Your task to perform on an android device: Go to settings Image 0: 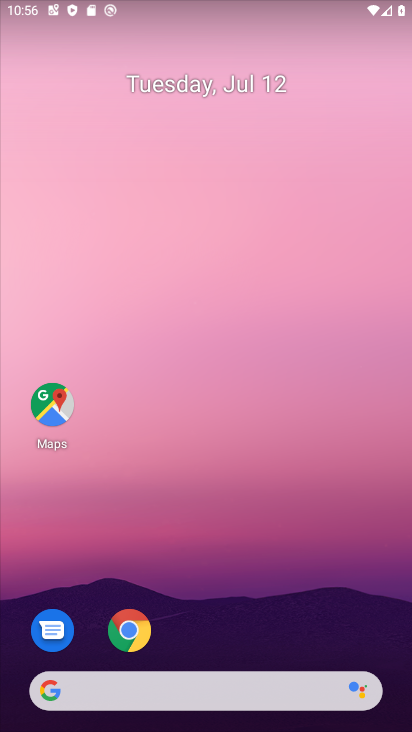
Step 0: drag from (312, 603) to (201, 30)
Your task to perform on an android device: Go to settings Image 1: 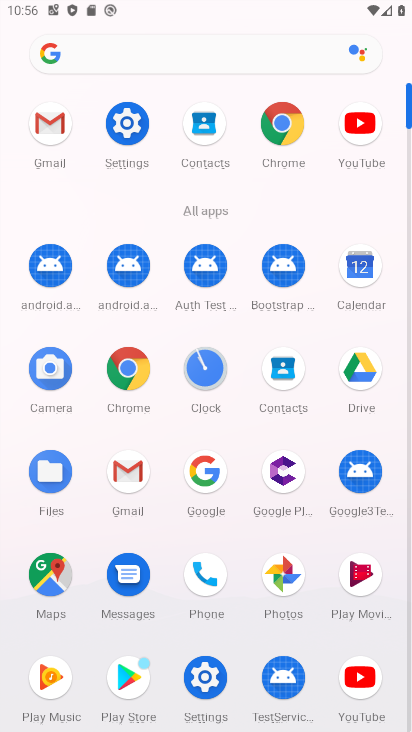
Step 1: click (146, 115)
Your task to perform on an android device: Go to settings Image 2: 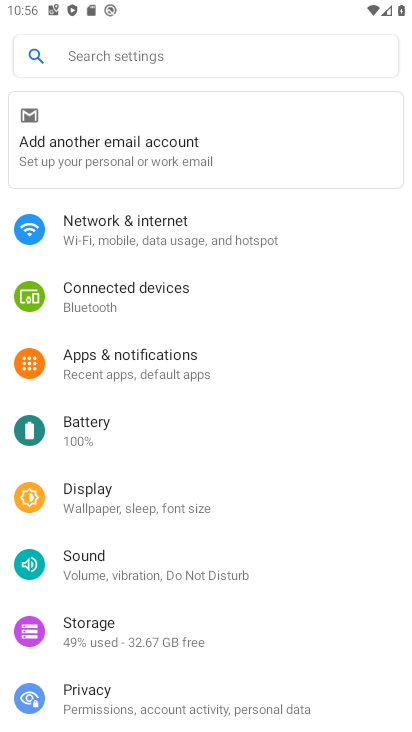
Step 2: task complete